Your task to perform on an android device: clear all cookies in the chrome app Image 0: 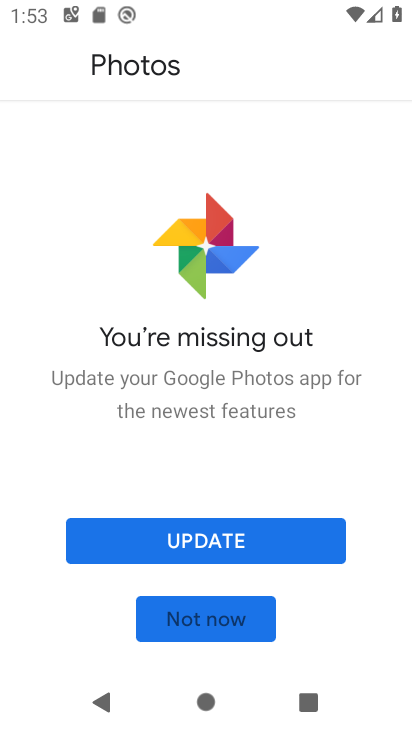
Step 0: press home button
Your task to perform on an android device: clear all cookies in the chrome app Image 1: 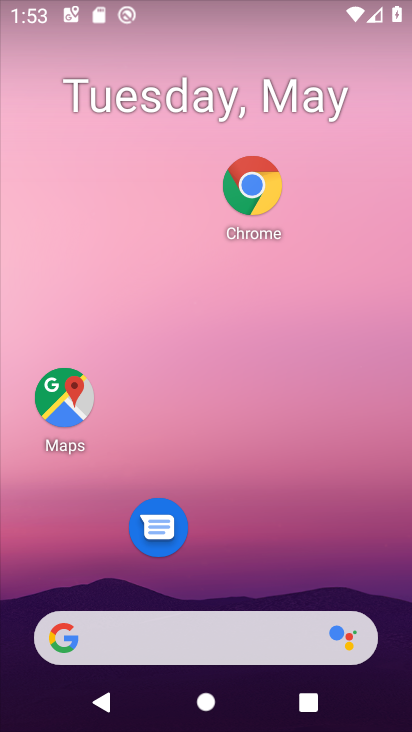
Step 1: click (253, 180)
Your task to perform on an android device: clear all cookies in the chrome app Image 2: 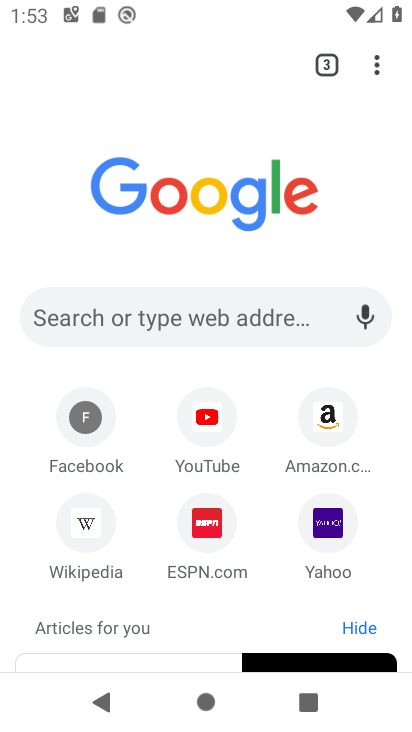
Step 2: click (376, 59)
Your task to perform on an android device: clear all cookies in the chrome app Image 3: 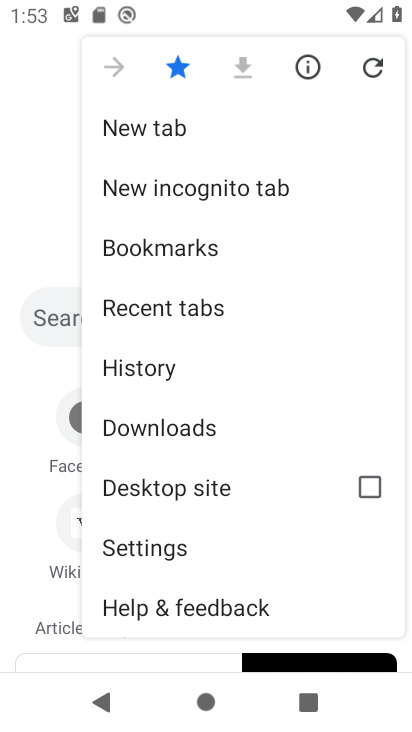
Step 3: click (156, 553)
Your task to perform on an android device: clear all cookies in the chrome app Image 4: 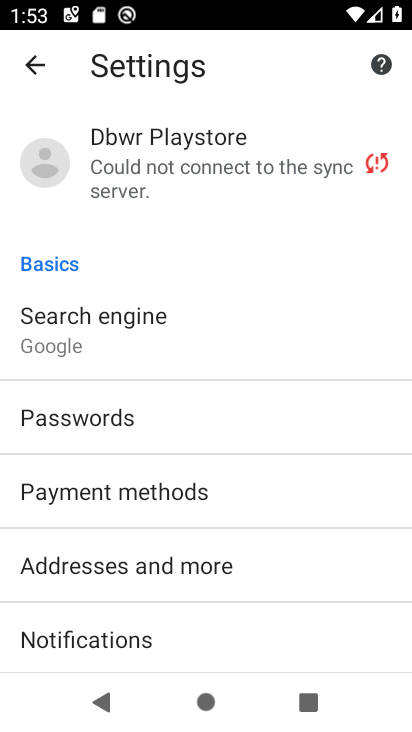
Step 4: drag from (226, 499) to (187, 229)
Your task to perform on an android device: clear all cookies in the chrome app Image 5: 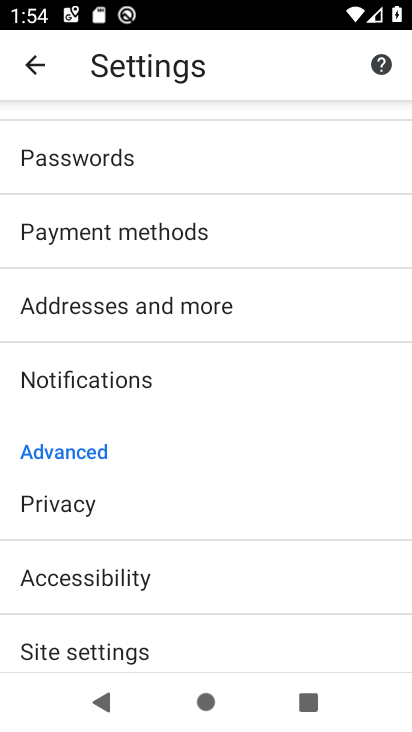
Step 5: drag from (208, 530) to (178, 310)
Your task to perform on an android device: clear all cookies in the chrome app Image 6: 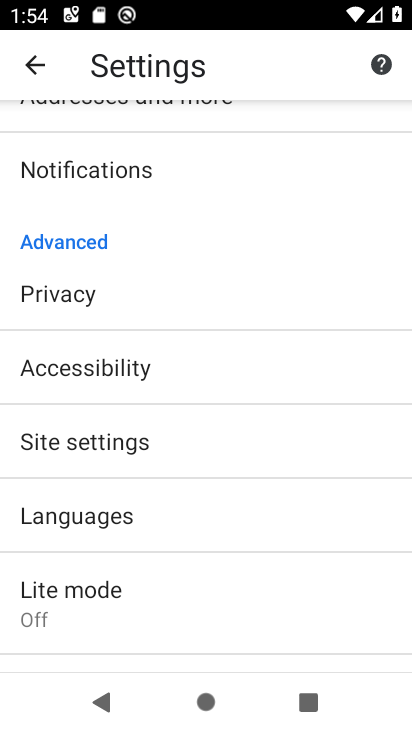
Step 6: click (80, 295)
Your task to perform on an android device: clear all cookies in the chrome app Image 7: 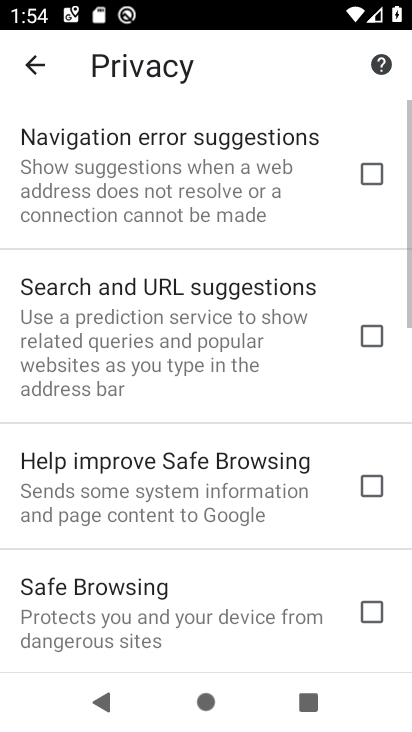
Step 7: drag from (258, 533) to (223, 298)
Your task to perform on an android device: clear all cookies in the chrome app Image 8: 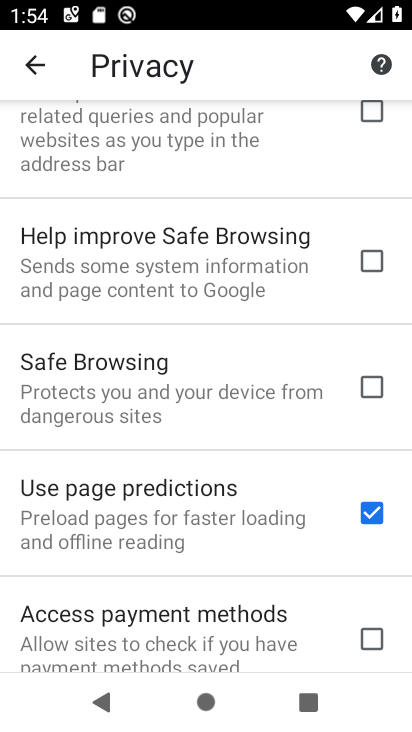
Step 8: drag from (261, 534) to (247, 310)
Your task to perform on an android device: clear all cookies in the chrome app Image 9: 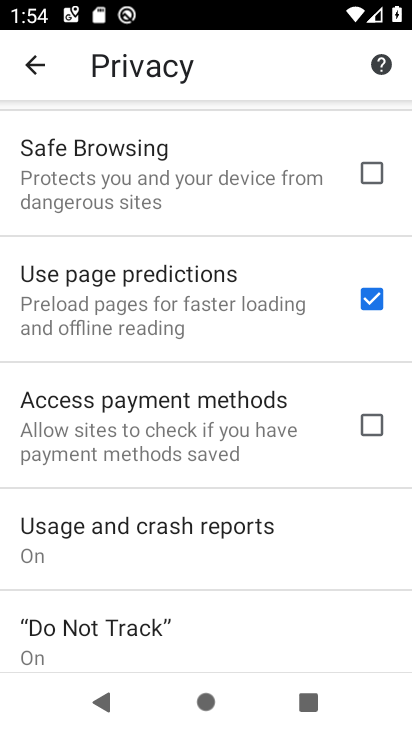
Step 9: drag from (235, 557) to (228, 293)
Your task to perform on an android device: clear all cookies in the chrome app Image 10: 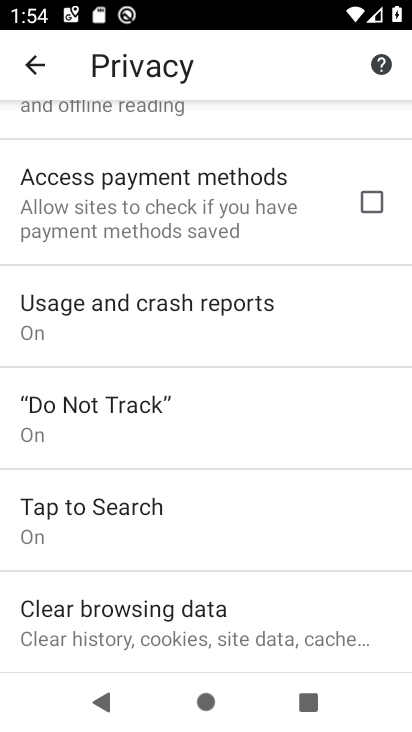
Step 10: click (148, 608)
Your task to perform on an android device: clear all cookies in the chrome app Image 11: 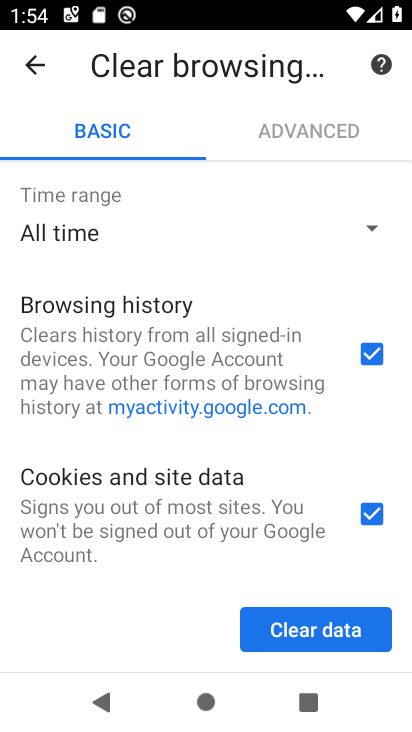
Step 11: click (370, 349)
Your task to perform on an android device: clear all cookies in the chrome app Image 12: 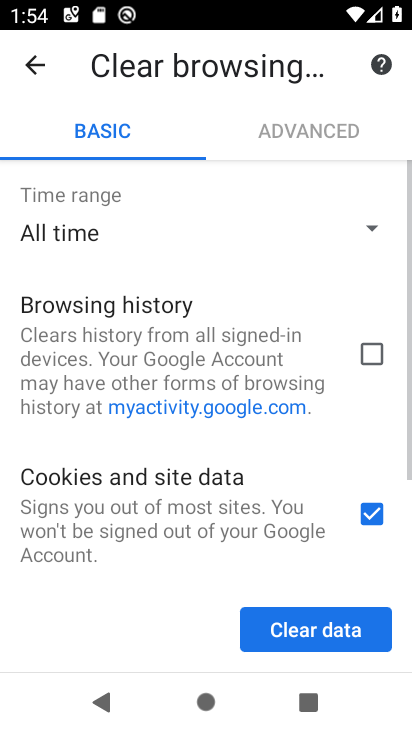
Step 12: drag from (233, 425) to (205, 191)
Your task to perform on an android device: clear all cookies in the chrome app Image 13: 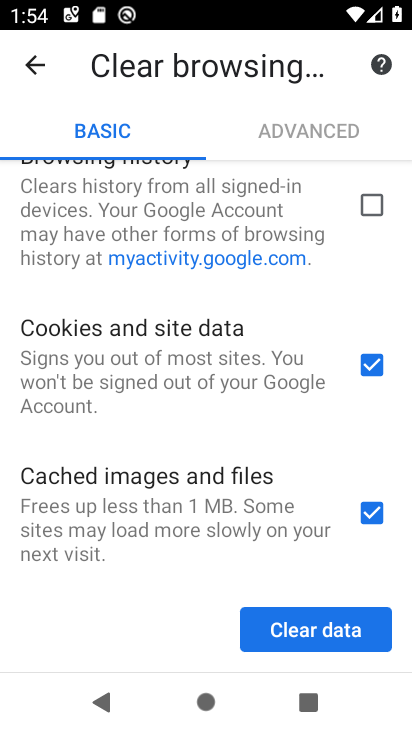
Step 13: click (362, 505)
Your task to perform on an android device: clear all cookies in the chrome app Image 14: 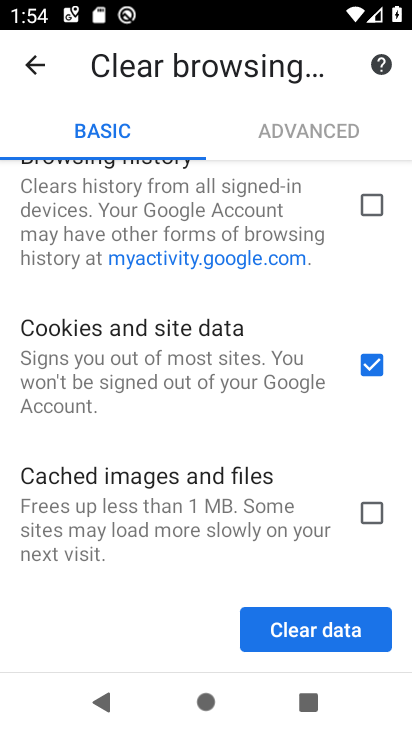
Step 14: click (294, 623)
Your task to perform on an android device: clear all cookies in the chrome app Image 15: 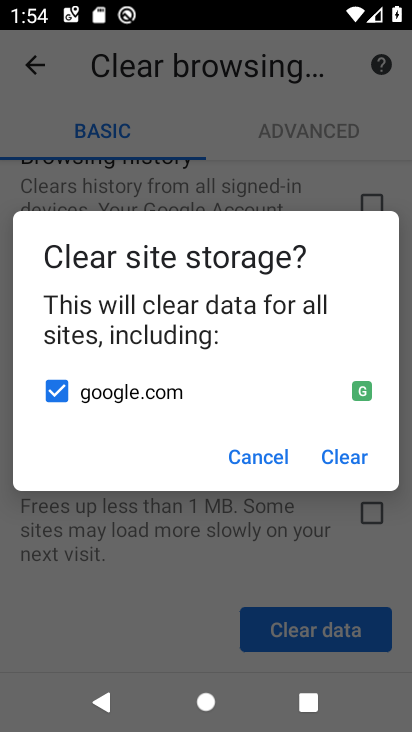
Step 15: click (343, 456)
Your task to perform on an android device: clear all cookies in the chrome app Image 16: 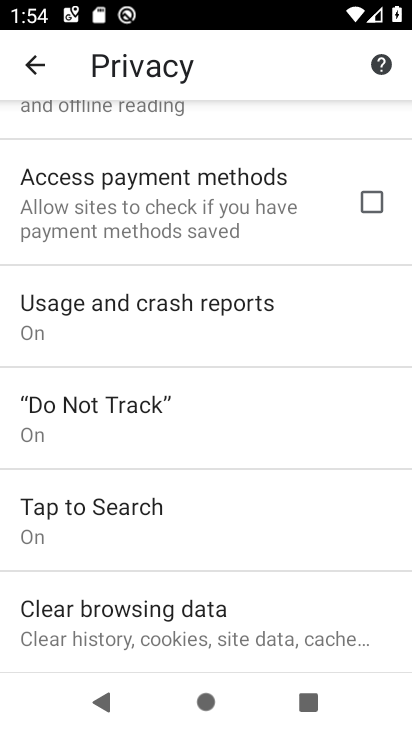
Step 16: task complete